Your task to perform on an android device: change text size in settings app Image 0: 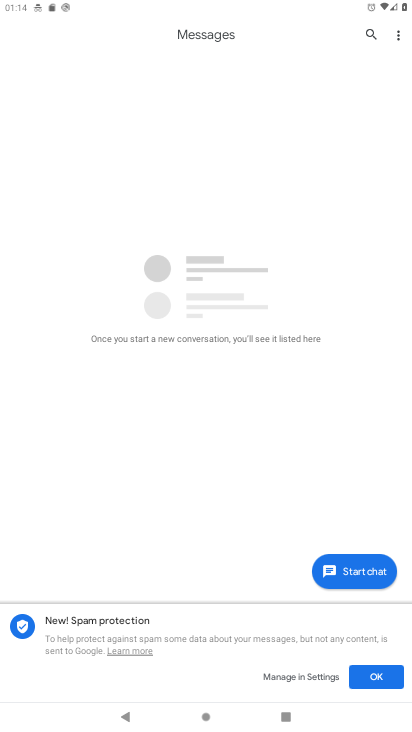
Step 0: press home button
Your task to perform on an android device: change text size in settings app Image 1: 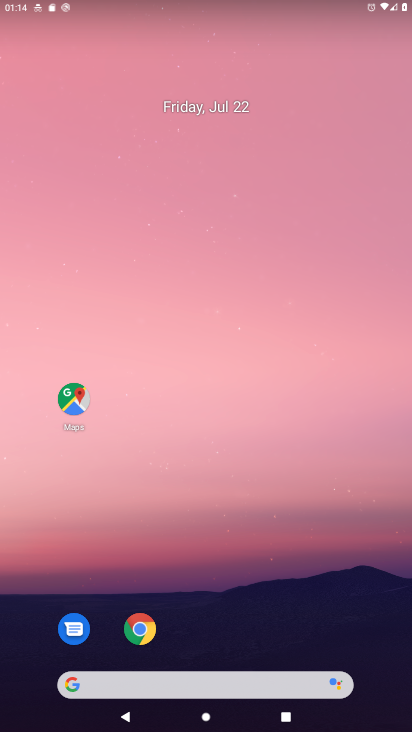
Step 1: drag from (240, 618) to (235, 228)
Your task to perform on an android device: change text size in settings app Image 2: 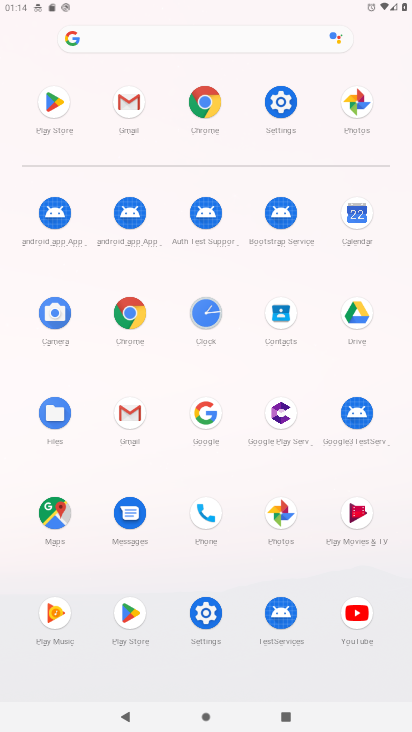
Step 2: click (281, 84)
Your task to perform on an android device: change text size in settings app Image 3: 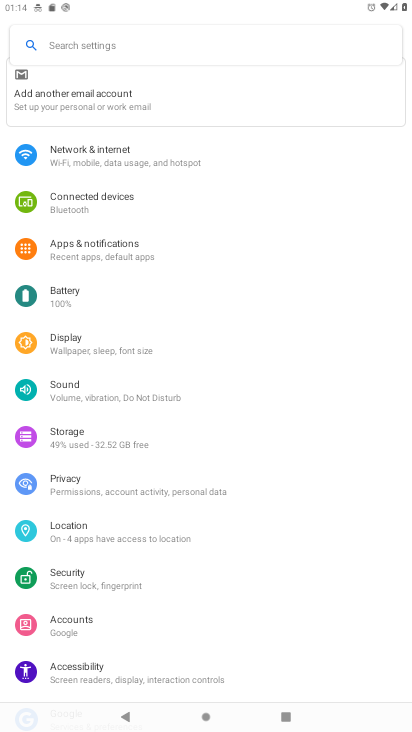
Step 3: click (97, 666)
Your task to perform on an android device: change text size in settings app Image 4: 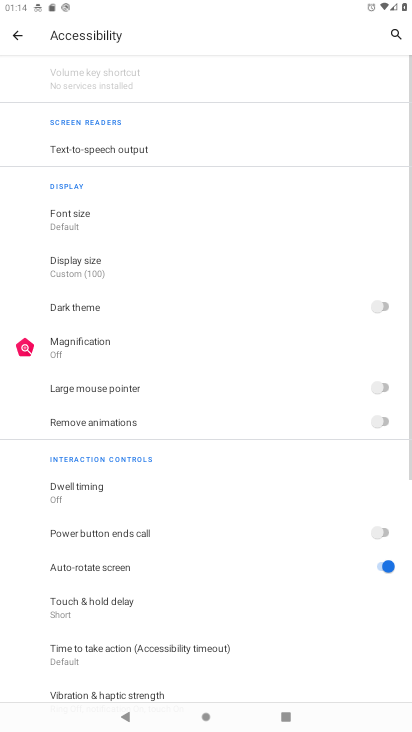
Step 4: click (87, 213)
Your task to perform on an android device: change text size in settings app Image 5: 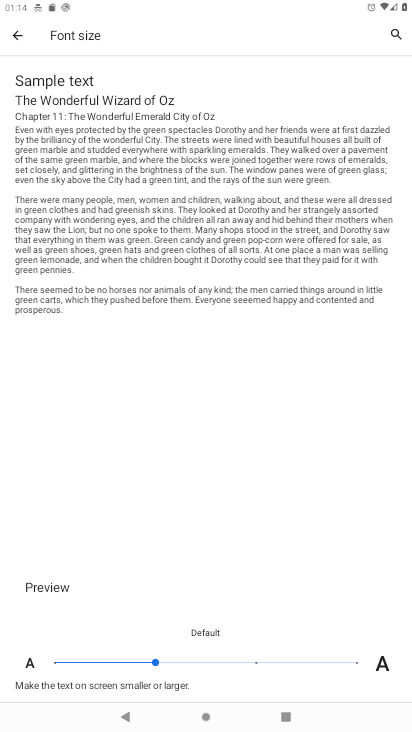
Step 5: click (266, 661)
Your task to perform on an android device: change text size in settings app Image 6: 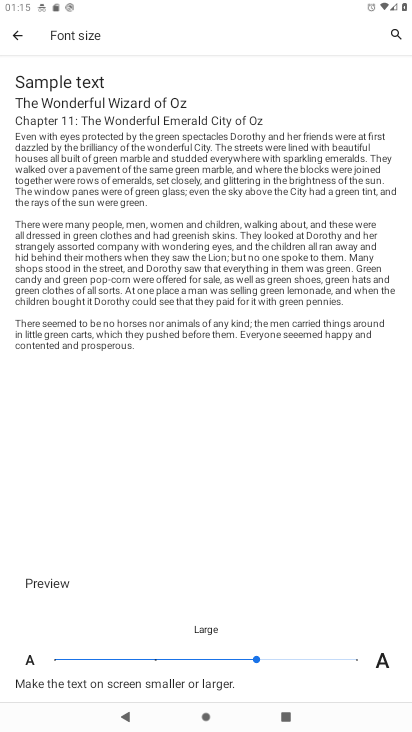
Step 6: task complete